Your task to perform on an android device: move a message to another label in the gmail app Image 0: 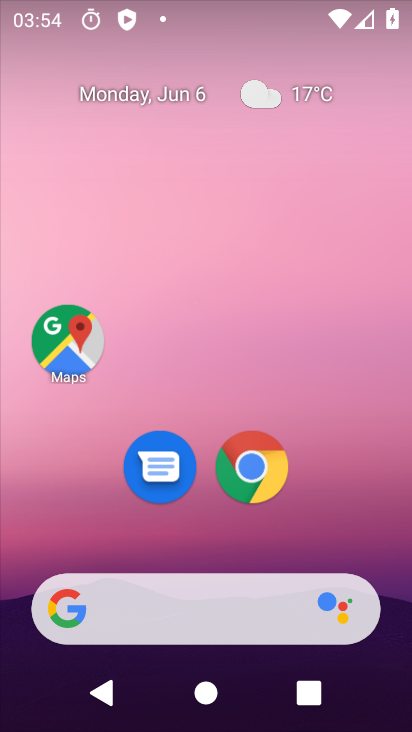
Step 0: press home button
Your task to perform on an android device: move a message to another label in the gmail app Image 1: 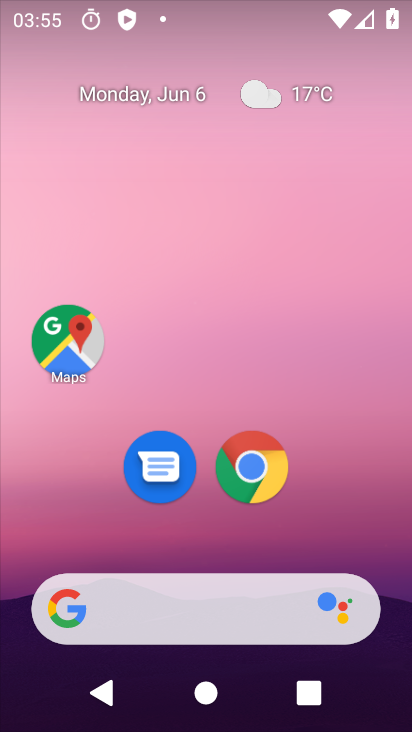
Step 1: drag from (212, 551) to (257, 32)
Your task to perform on an android device: move a message to another label in the gmail app Image 2: 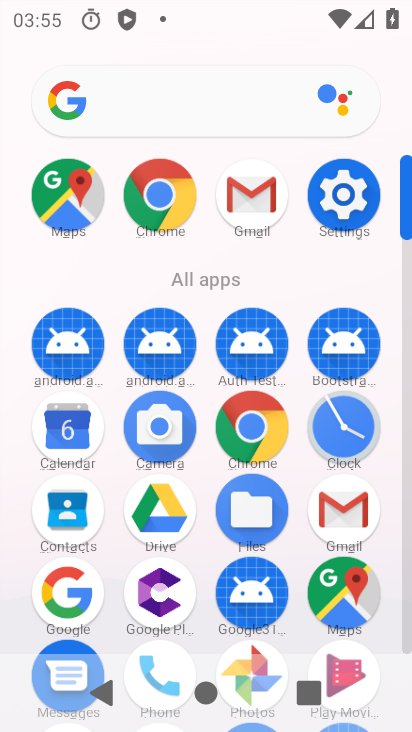
Step 2: click (343, 497)
Your task to perform on an android device: move a message to another label in the gmail app Image 3: 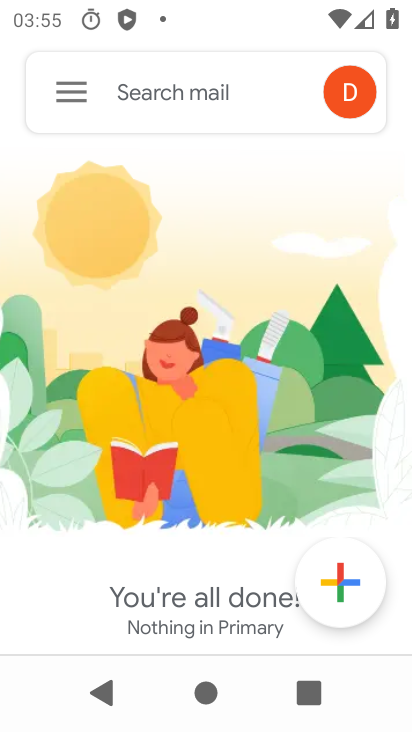
Step 3: click (61, 86)
Your task to perform on an android device: move a message to another label in the gmail app Image 4: 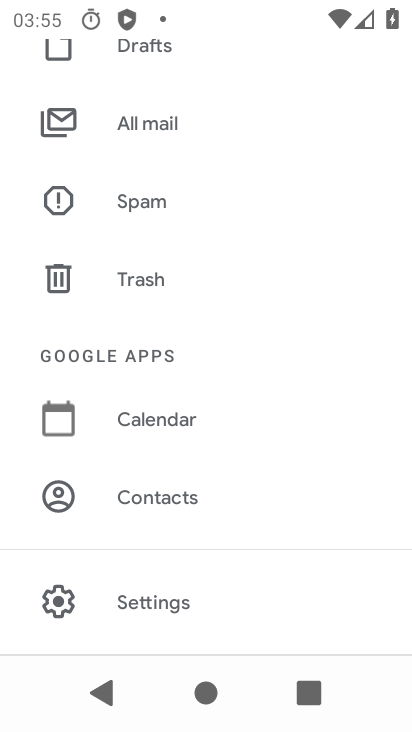
Step 4: task complete